Your task to perform on an android device: Open the calendar app, open the side menu, and click the "Day" option Image 0: 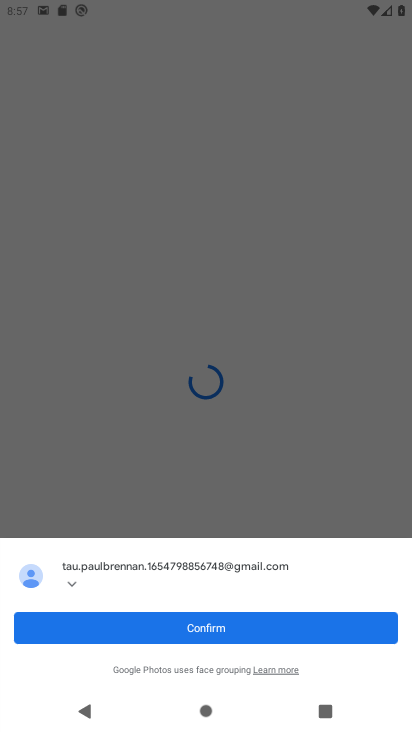
Step 0: press home button
Your task to perform on an android device: Open the calendar app, open the side menu, and click the "Day" option Image 1: 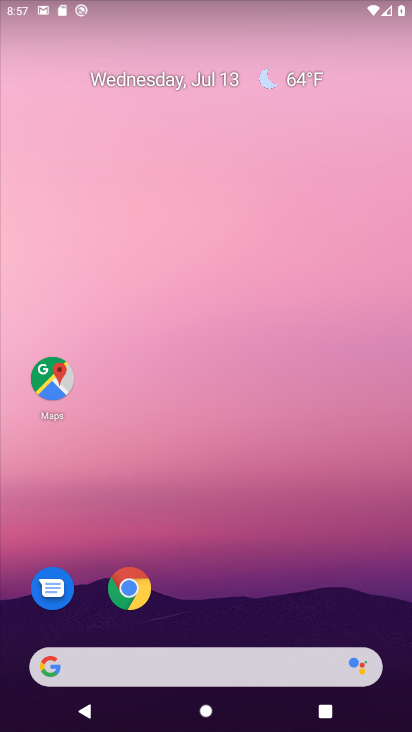
Step 1: drag from (235, 613) to (208, 23)
Your task to perform on an android device: Open the calendar app, open the side menu, and click the "Day" option Image 2: 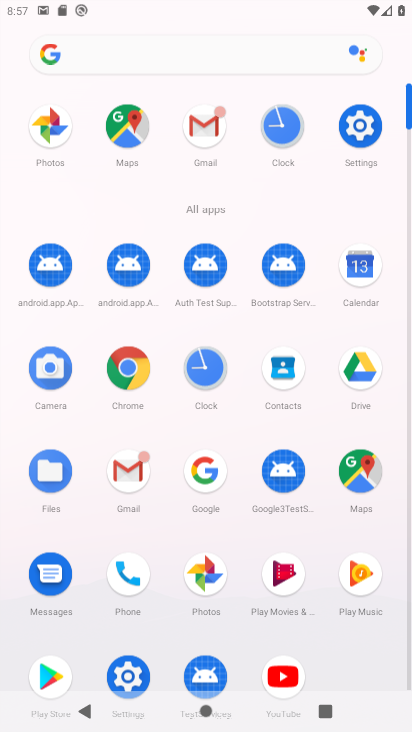
Step 2: click (365, 298)
Your task to perform on an android device: Open the calendar app, open the side menu, and click the "Day" option Image 3: 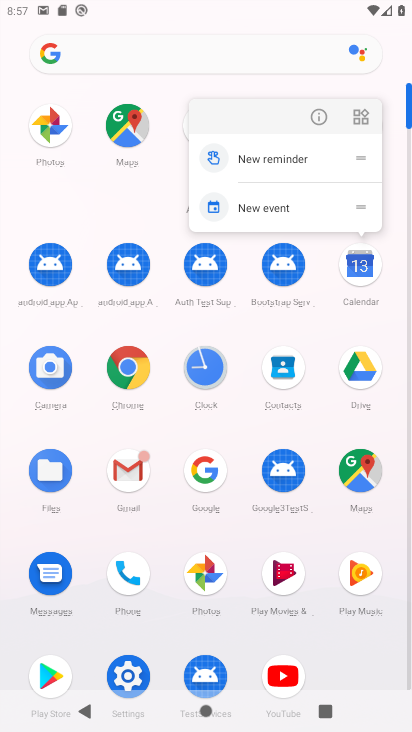
Step 3: click (365, 276)
Your task to perform on an android device: Open the calendar app, open the side menu, and click the "Day" option Image 4: 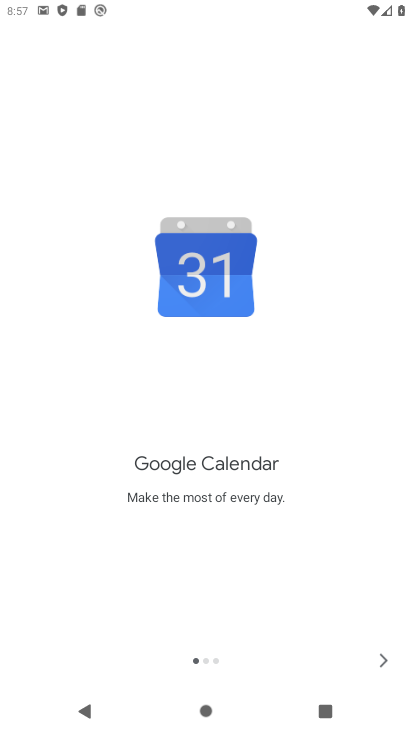
Step 4: click (379, 655)
Your task to perform on an android device: Open the calendar app, open the side menu, and click the "Day" option Image 5: 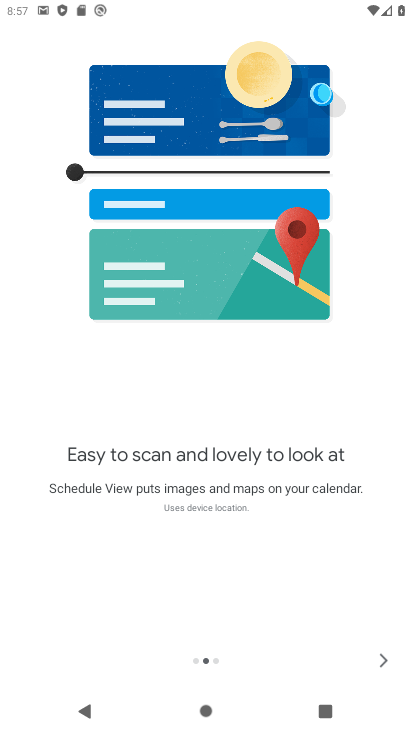
Step 5: click (379, 655)
Your task to perform on an android device: Open the calendar app, open the side menu, and click the "Day" option Image 6: 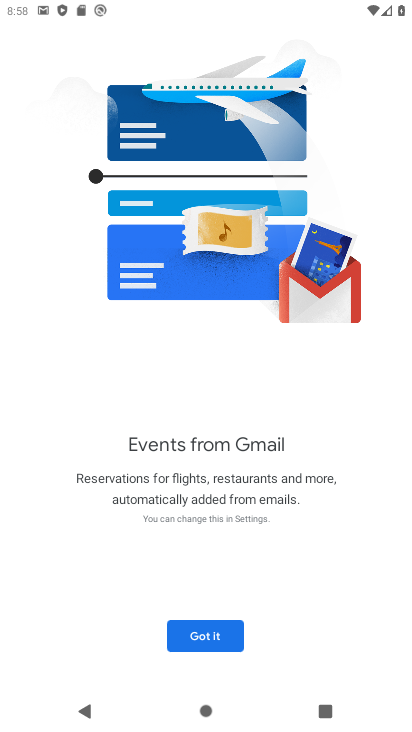
Step 6: click (212, 632)
Your task to perform on an android device: Open the calendar app, open the side menu, and click the "Day" option Image 7: 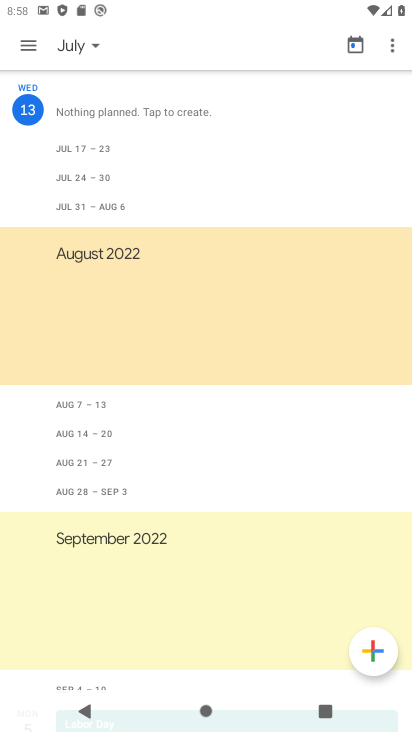
Step 7: click (20, 49)
Your task to perform on an android device: Open the calendar app, open the side menu, and click the "Day" option Image 8: 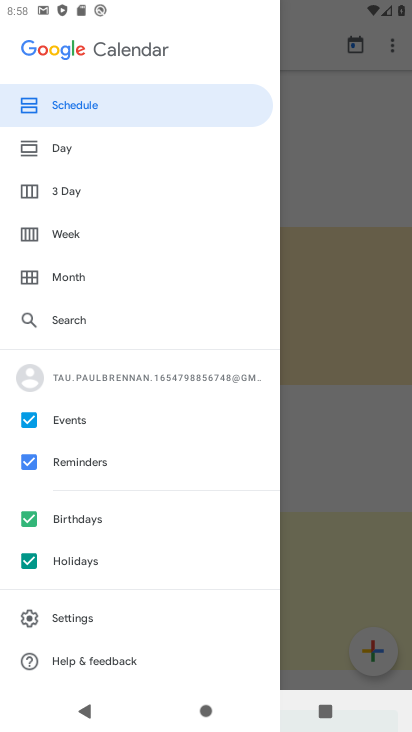
Step 8: click (51, 153)
Your task to perform on an android device: Open the calendar app, open the side menu, and click the "Day" option Image 9: 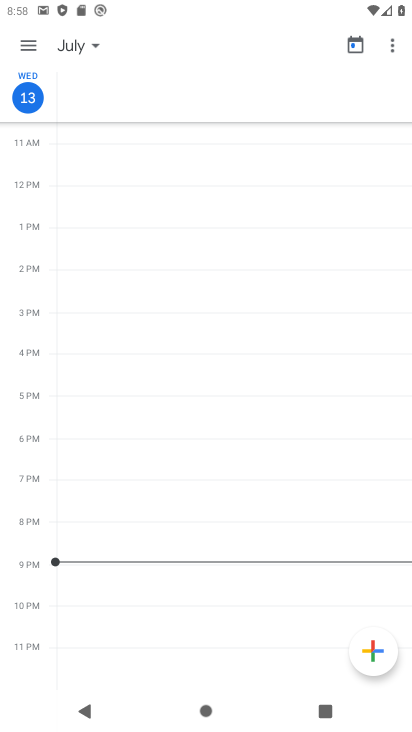
Step 9: task complete